Your task to perform on an android device: Open ESPN.com Image 0: 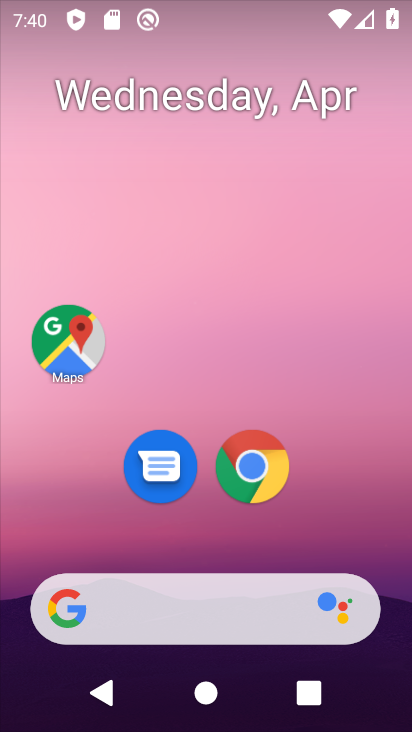
Step 0: drag from (328, 552) to (345, 103)
Your task to perform on an android device: Open ESPN.com Image 1: 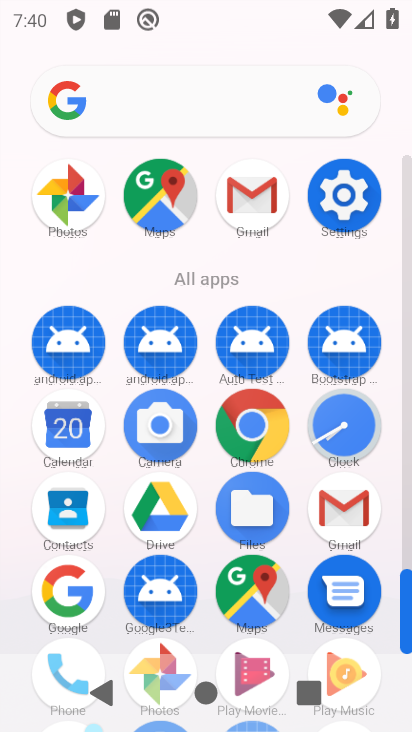
Step 1: click (248, 446)
Your task to perform on an android device: Open ESPN.com Image 2: 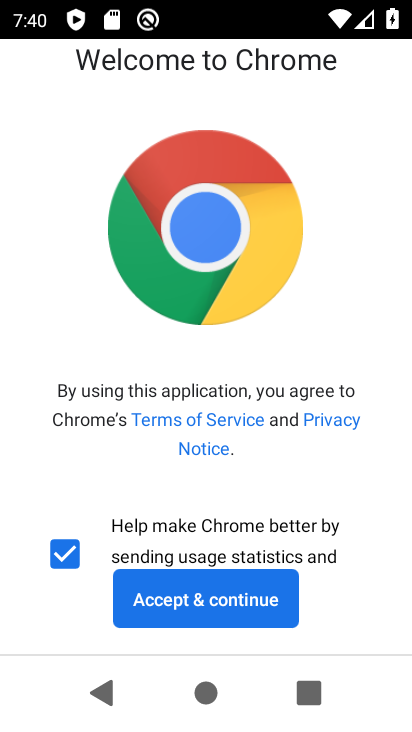
Step 2: click (217, 602)
Your task to perform on an android device: Open ESPN.com Image 3: 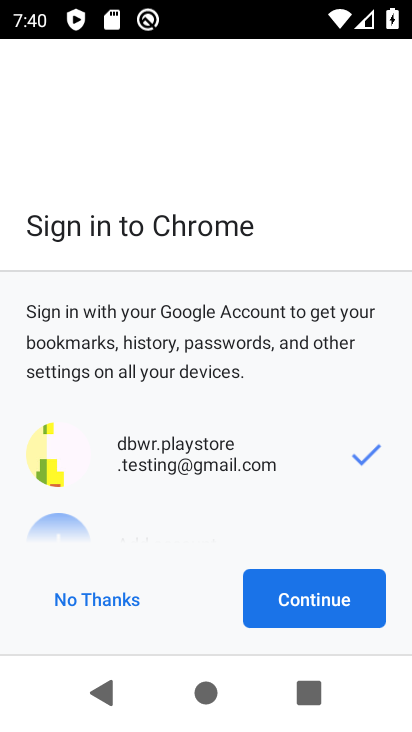
Step 3: click (287, 601)
Your task to perform on an android device: Open ESPN.com Image 4: 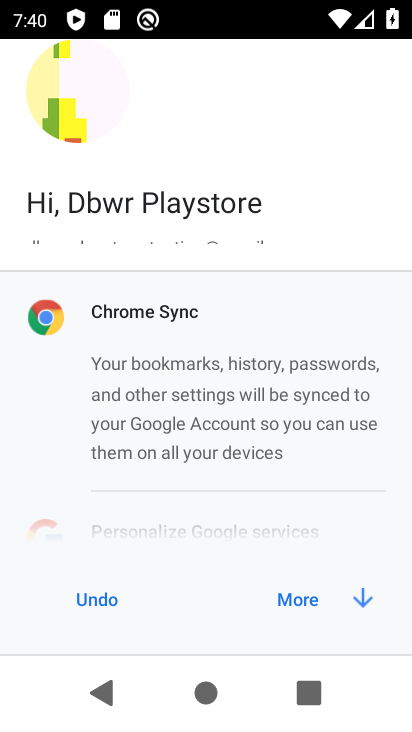
Step 4: click (301, 599)
Your task to perform on an android device: Open ESPN.com Image 5: 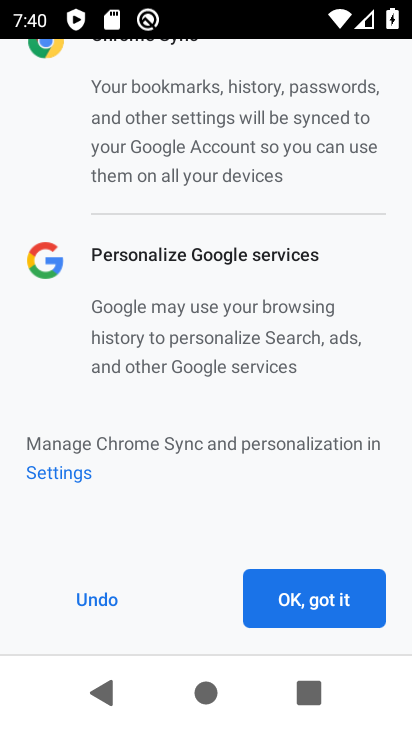
Step 5: click (300, 600)
Your task to perform on an android device: Open ESPN.com Image 6: 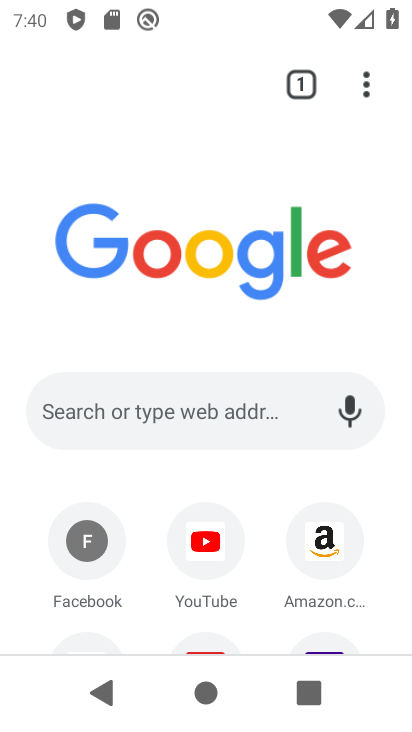
Step 6: drag from (269, 565) to (299, 179)
Your task to perform on an android device: Open ESPN.com Image 7: 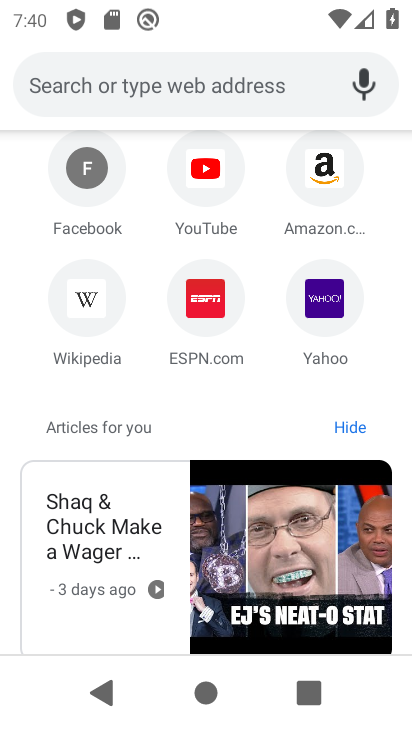
Step 7: click (215, 333)
Your task to perform on an android device: Open ESPN.com Image 8: 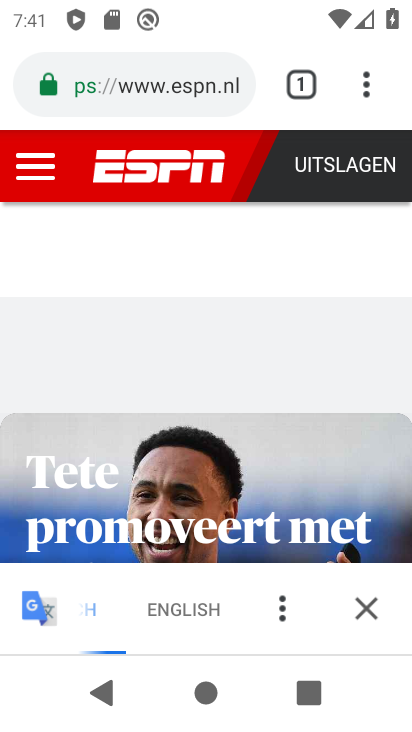
Step 8: task complete